Your task to perform on an android device: toggle data saver in the chrome app Image 0: 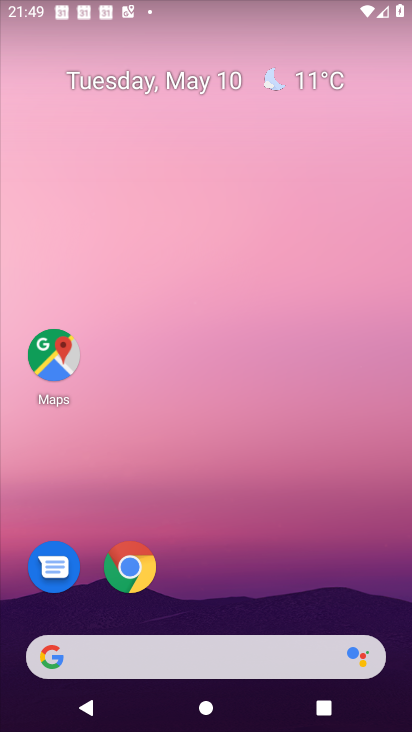
Step 0: click (127, 557)
Your task to perform on an android device: toggle data saver in the chrome app Image 1: 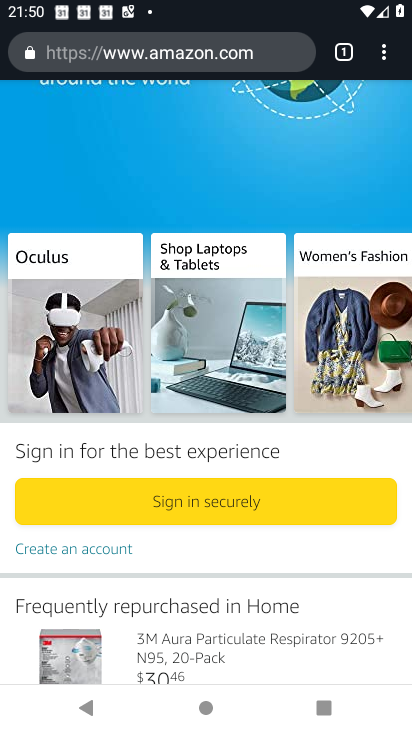
Step 1: drag from (326, 174) to (384, 498)
Your task to perform on an android device: toggle data saver in the chrome app Image 2: 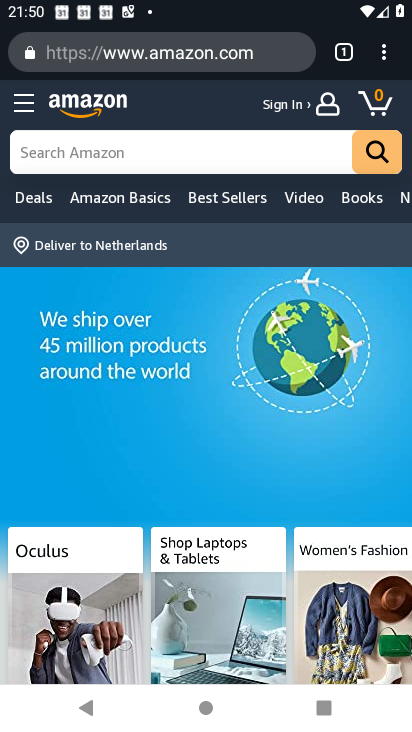
Step 2: click (383, 56)
Your task to perform on an android device: toggle data saver in the chrome app Image 3: 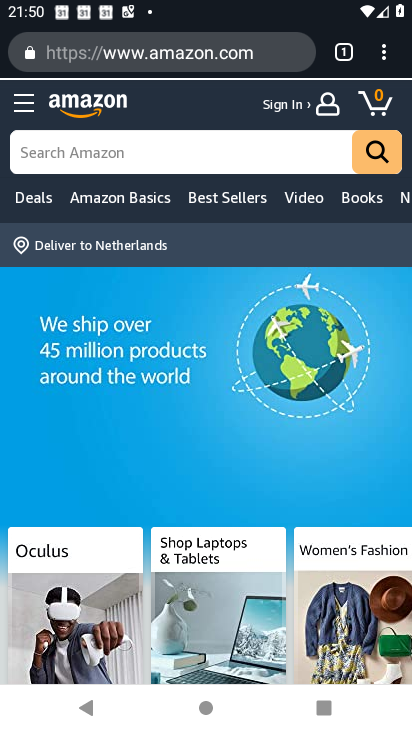
Step 3: click (383, 56)
Your task to perform on an android device: toggle data saver in the chrome app Image 4: 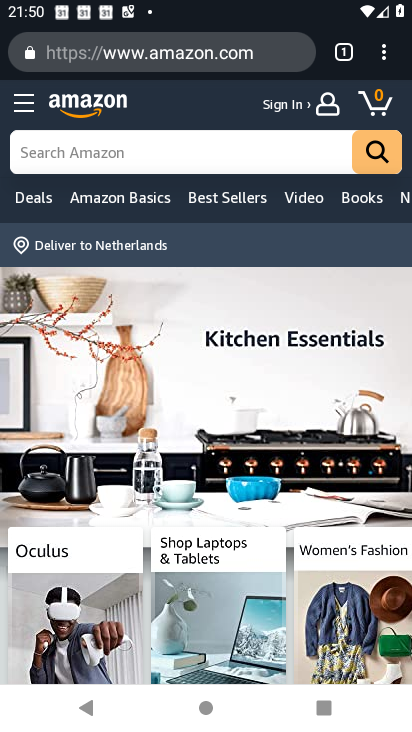
Step 4: click (383, 56)
Your task to perform on an android device: toggle data saver in the chrome app Image 5: 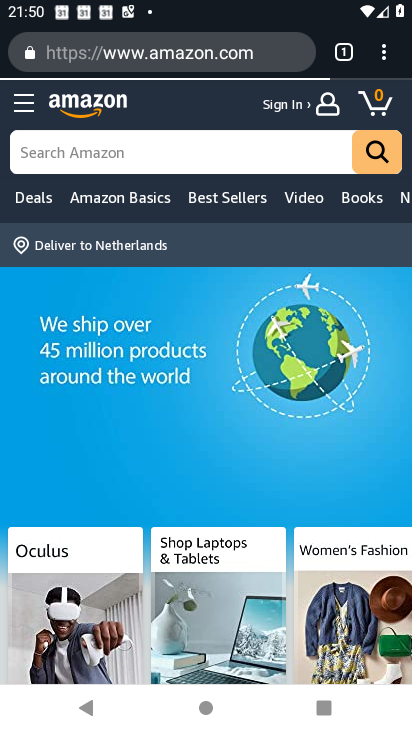
Step 5: click (383, 57)
Your task to perform on an android device: toggle data saver in the chrome app Image 6: 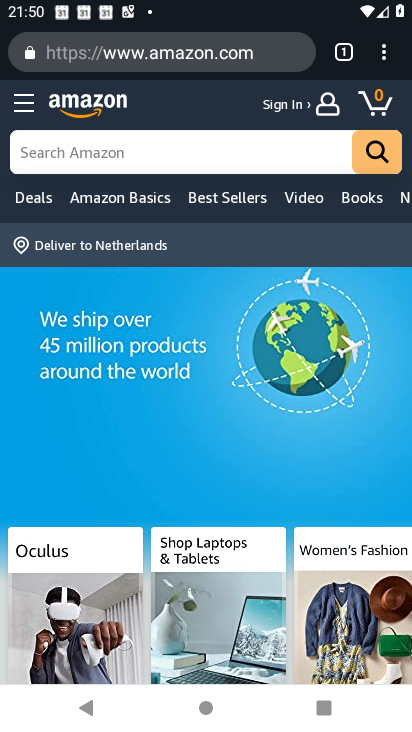
Step 6: click (383, 57)
Your task to perform on an android device: toggle data saver in the chrome app Image 7: 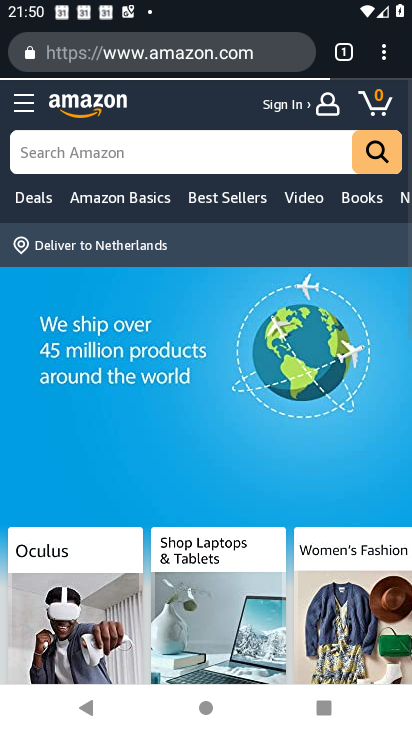
Step 7: click (383, 57)
Your task to perform on an android device: toggle data saver in the chrome app Image 8: 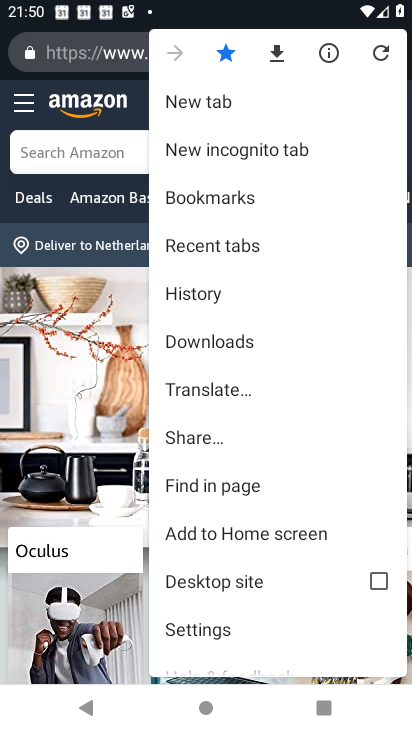
Step 8: click (207, 625)
Your task to perform on an android device: toggle data saver in the chrome app Image 9: 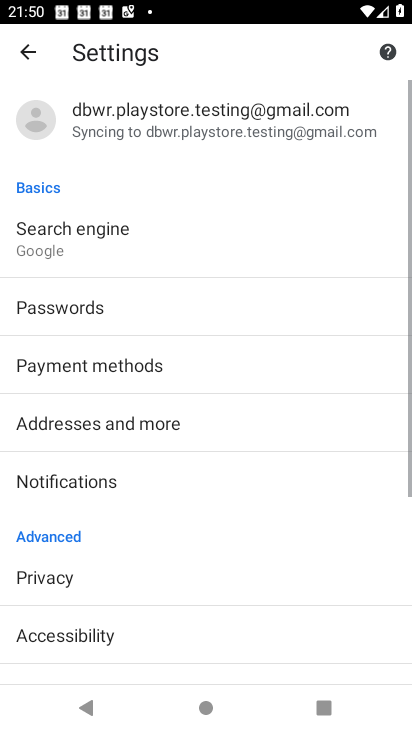
Step 9: drag from (214, 631) to (214, 257)
Your task to perform on an android device: toggle data saver in the chrome app Image 10: 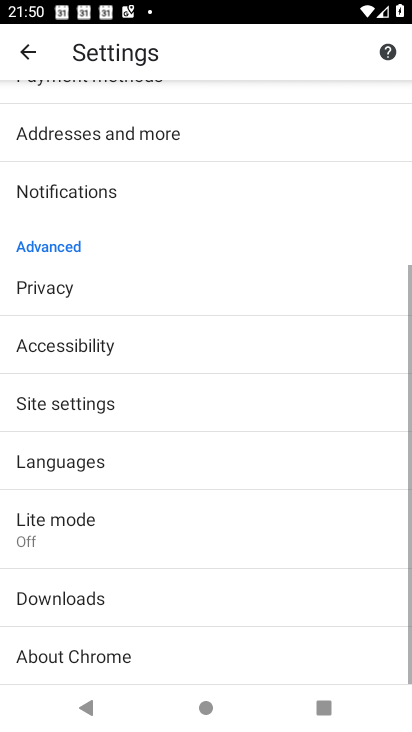
Step 10: click (52, 534)
Your task to perform on an android device: toggle data saver in the chrome app Image 11: 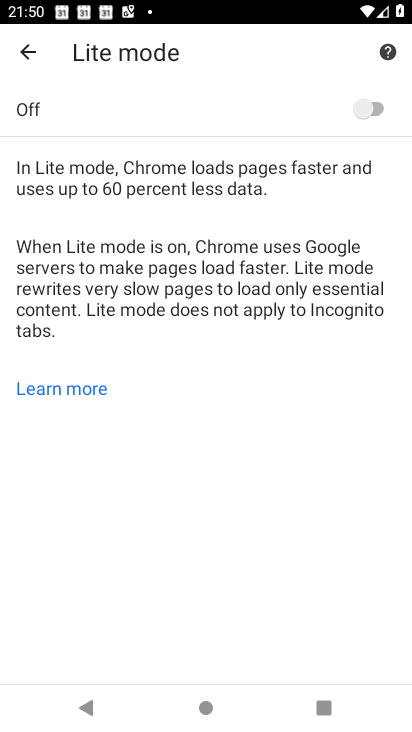
Step 11: click (368, 107)
Your task to perform on an android device: toggle data saver in the chrome app Image 12: 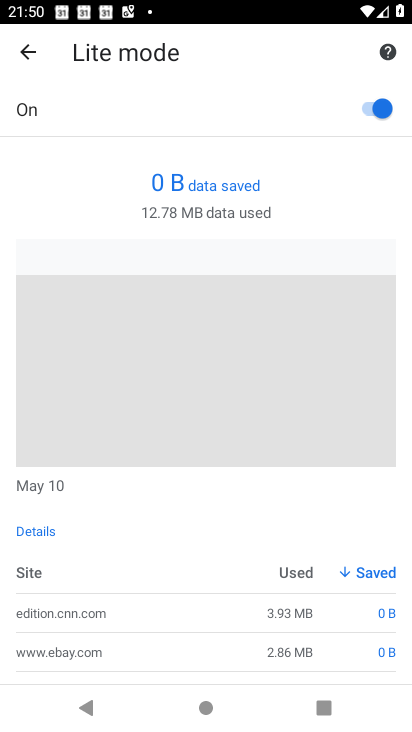
Step 12: task complete